Your task to perform on an android device: move an email to a new category in the gmail app Image 0: 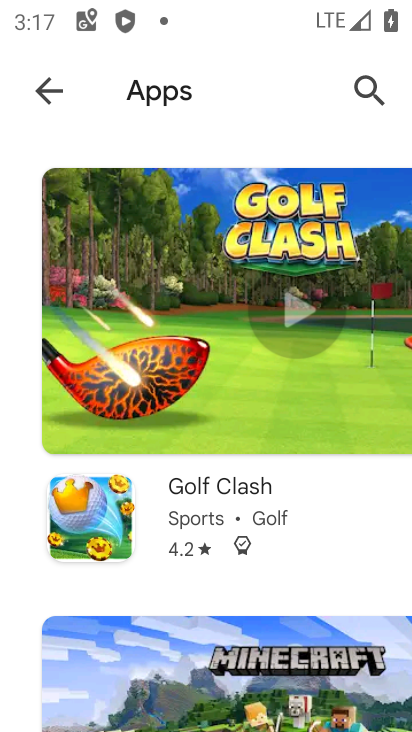
Step 0: press back button
Your task to perform on an android device: move an email to a new category in the gmail app Image 1: 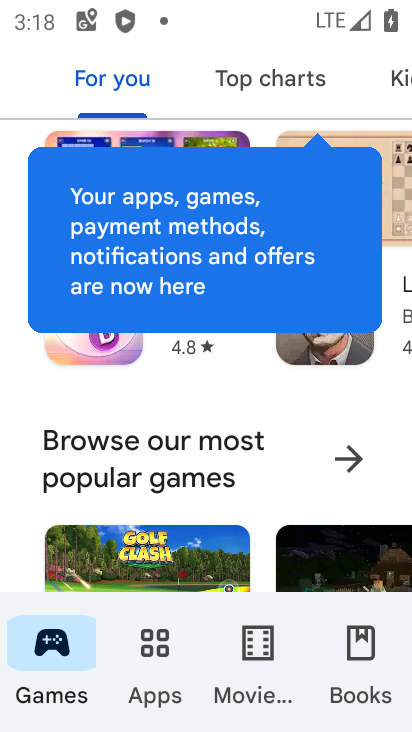
Step 1: press home button
Your task to perform on an android device: move an email to a new category in the gmail app Image 2: 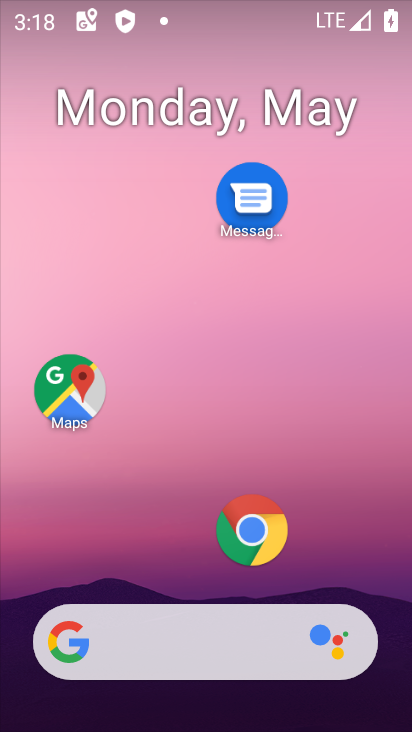
Step 2: drag from (185, 561) to (240, 104)
Your task to perform on an android device: move an email to a new category in the gmail app Image 3: 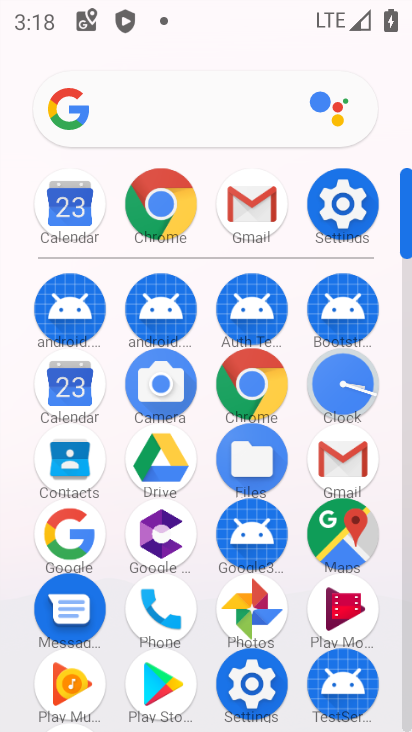
Step 3: click (261, 189)
Your task to perform on an android device: move an email to a new category in the gmail app Image 4: 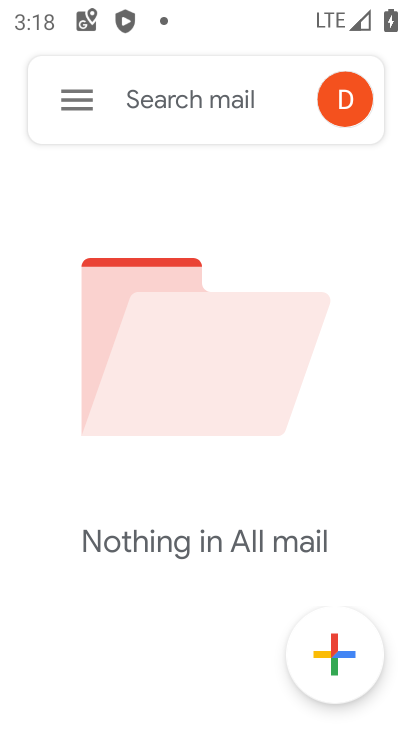
Step 4: task complete